Your task to perform on an android device: Open privacy settings Image 0: 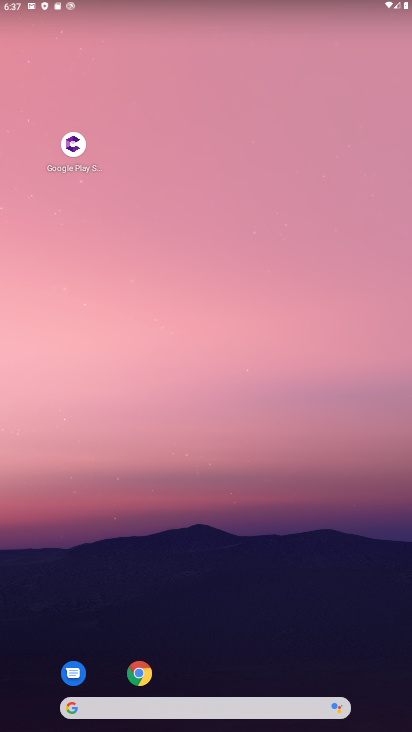
Step 0: drag from (372, 694) to (98, 30)
Your task to perform on an android device: Open privacy settings Image 1: 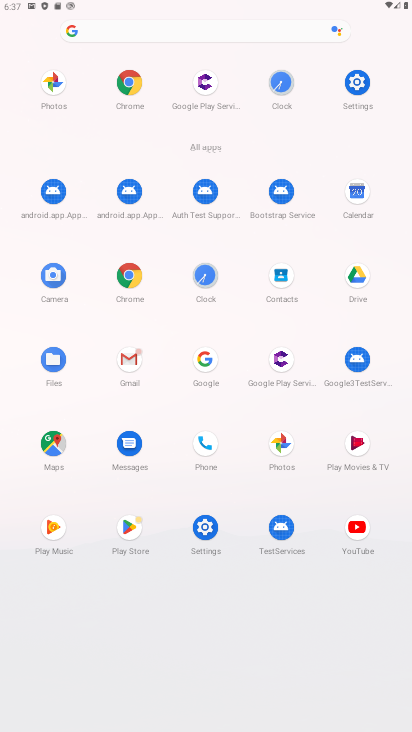
Step 1: click (208, 541)
Your task to perform on an android device: Open privacy settings Image 2: 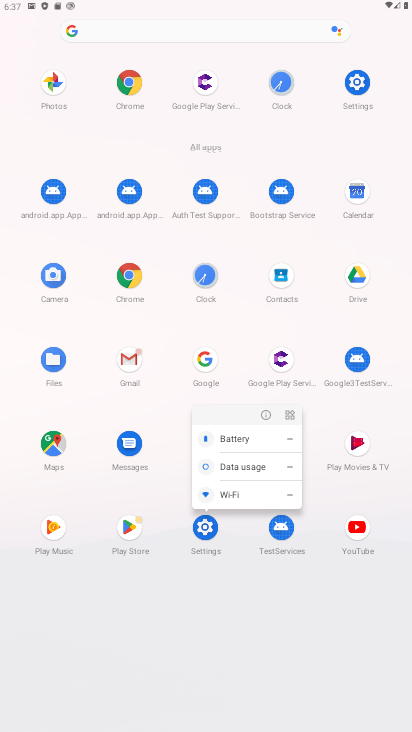
Step 2: click (208, 541)
Your task to perform on an android device: Open privacy settings Image 3: 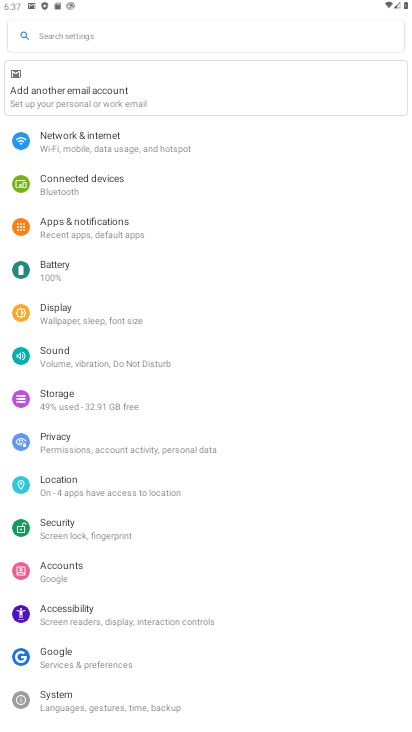
Step 3: click (52, 440)
Your task to perform on an android device: Open privacy settings Image 4: 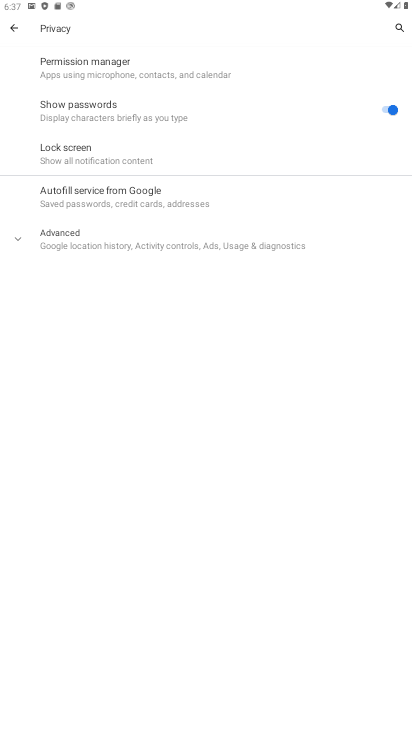
Step 4: task complete